Your task to perform on an android device: add a contact in the contacts app Image 0: 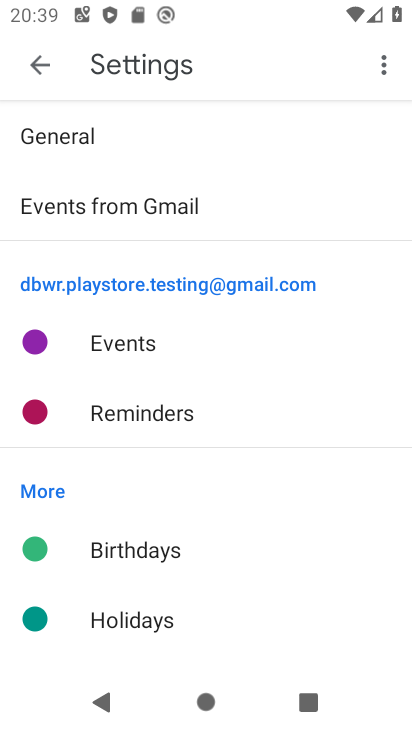
Step 0: press home button
Your task to perform on an android device: add a contact in the contacts app Image 1: 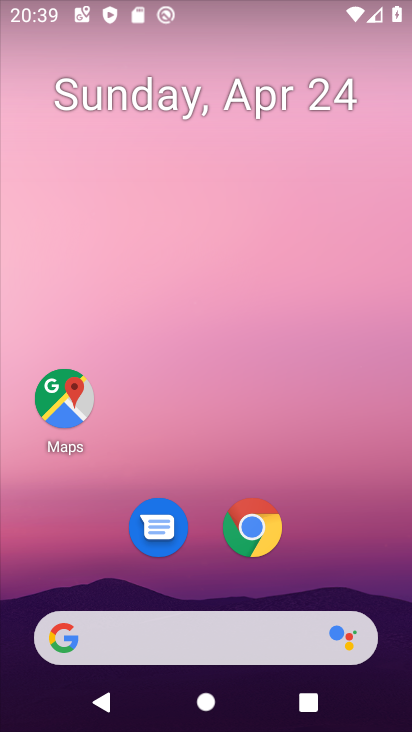
Step 1: drag from (342, 569) to (308, 75)
Your task to perform on an android device: add a contact in the contacts app Image 2: 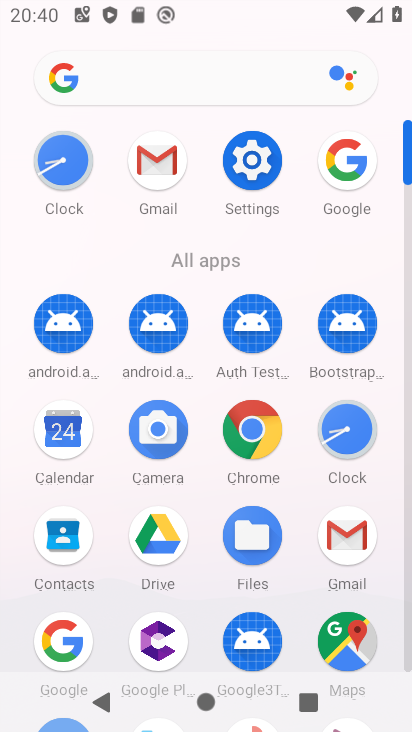
Step 2: drag from (284, 605) to (276, 212)
Your task to perform on an android device: add a contact in the contacts app Image 3: 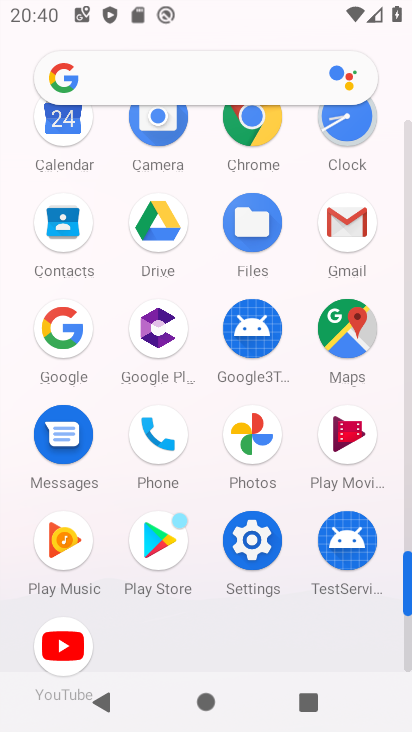
Step 3: click (70, 234)
Your task to perform on an android device: add a contact in the contacts app Image 4: 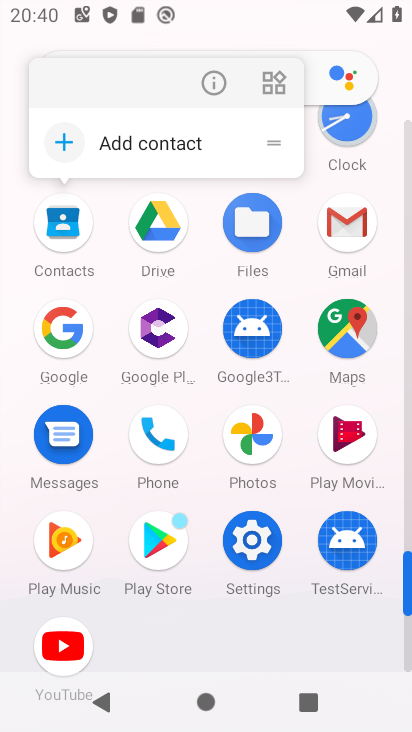
Step 4: click (70, 225)
Your task to perform on an android device: add a contact in the contacts app Image 5: 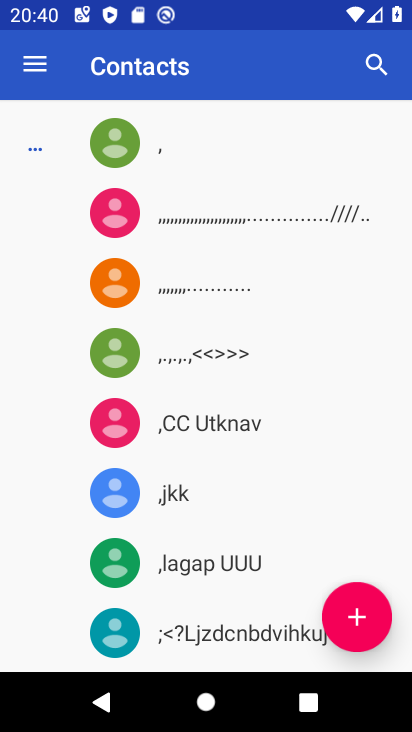
Step 5: click (369, 619)
Your task to perform on an android device: add a contact in the contacts app Image 6: 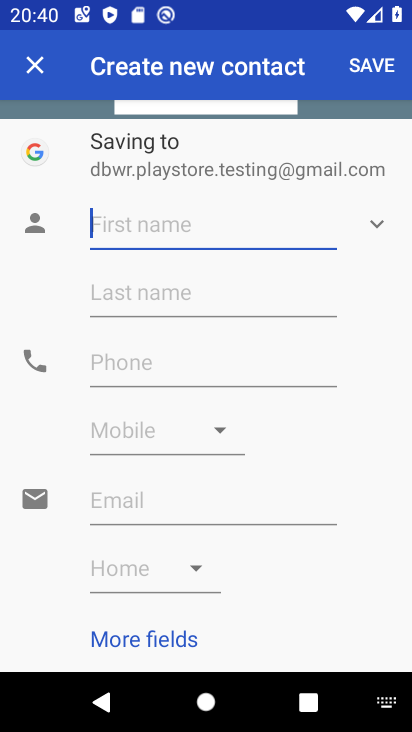
Step 6: type "rtydgh"
Your task to perform on an android device: add a contact in the contacts app Image 7: 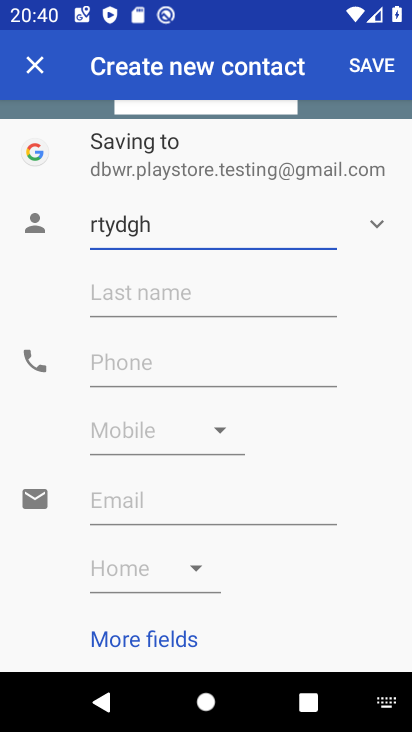
Step 7: click (130, 364)
Your task to perform on an android device: add a contact in the contacts app Image 8: 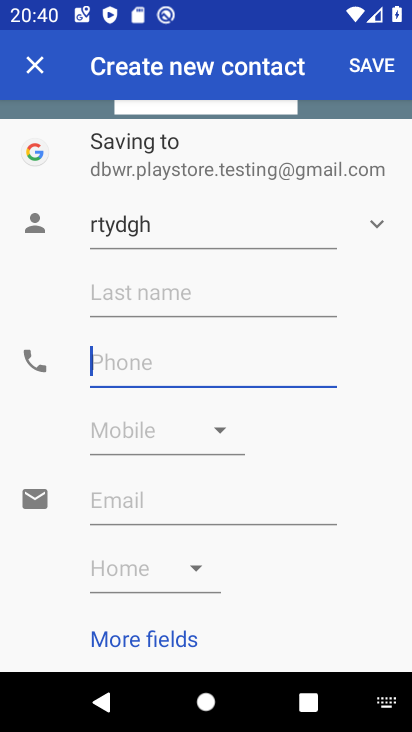
Step 8: type "4567898765434567"
Your task to perform on an android device: add a contact in the contacts app Image 9: 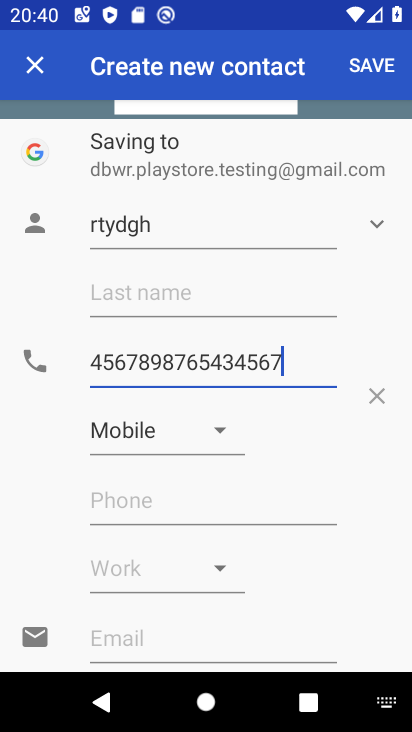
Step 9: click (353, 68)
Your task to perform on an android device: add a contact in the contacts app Image 10: 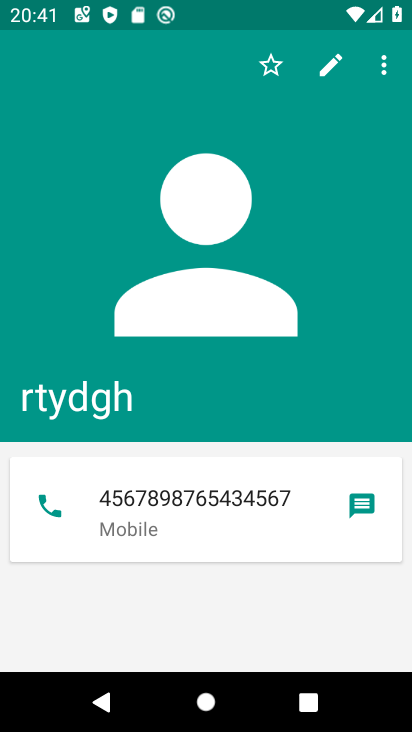
Step 10: task complete